Your task to perform on an android device: How much does a 3 bedroom apartment rent for in Austin? Image 0: 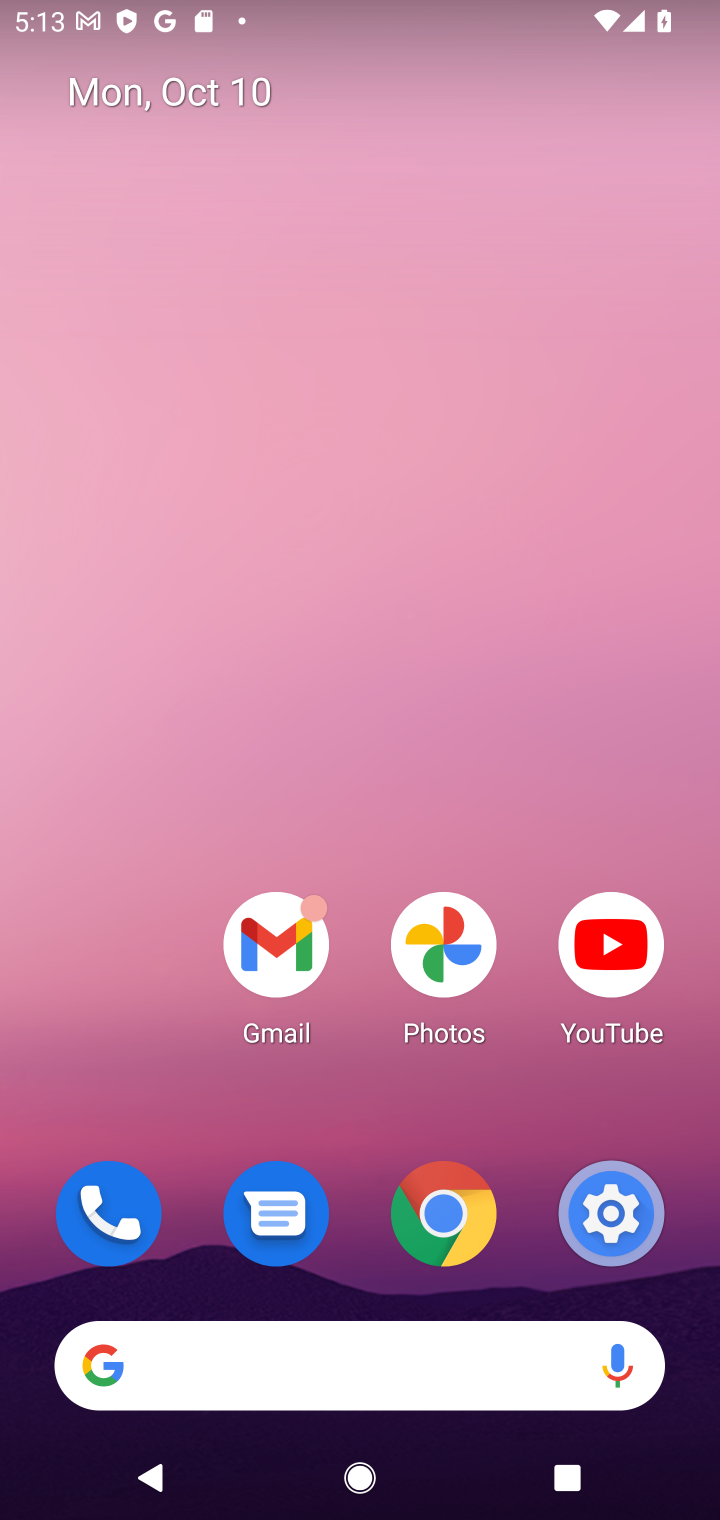
Step 0: click (376, 1379)
Your task to perform on an android device: How much does a 3 bedroom apartment rent for in Austin? Image 1: 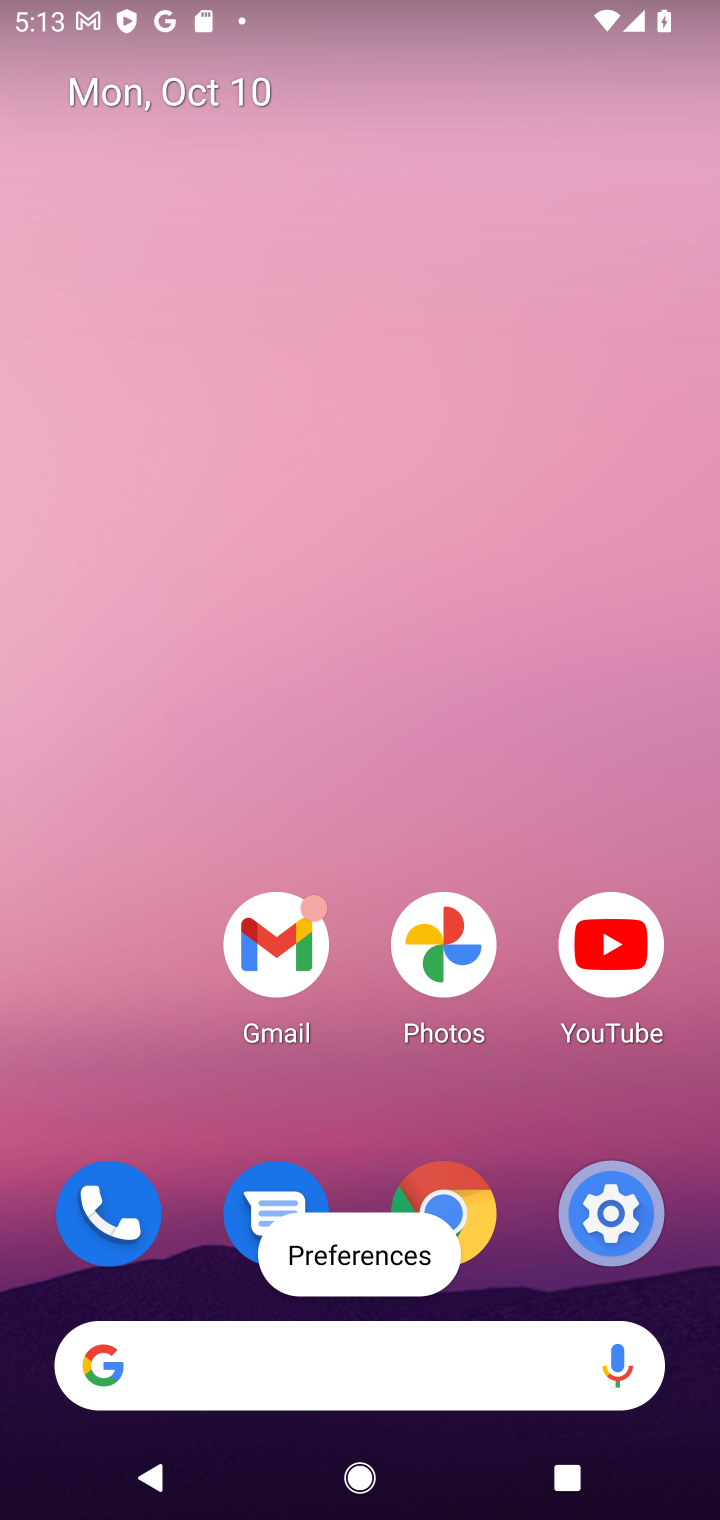
Step 1: click (376, 1379)
Your task to perform on an android device: How much does a 3 bedroom apartment rent for in Austin? Image 2: 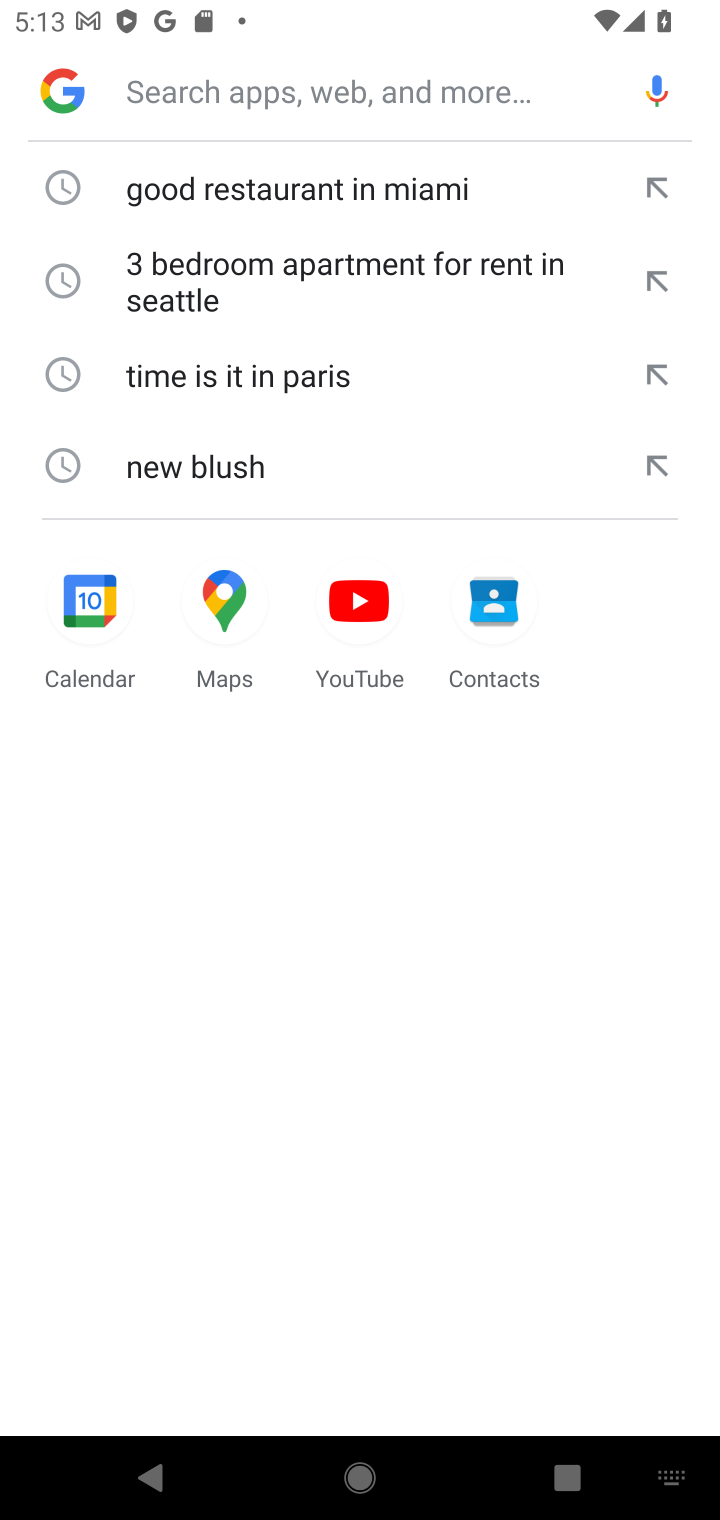
Step 2: type "3 bedroom apartment rent for in Austin"
Your task to perform on an android device: How much does a 3 bedroom apartment rent for in Austin? Image 3: 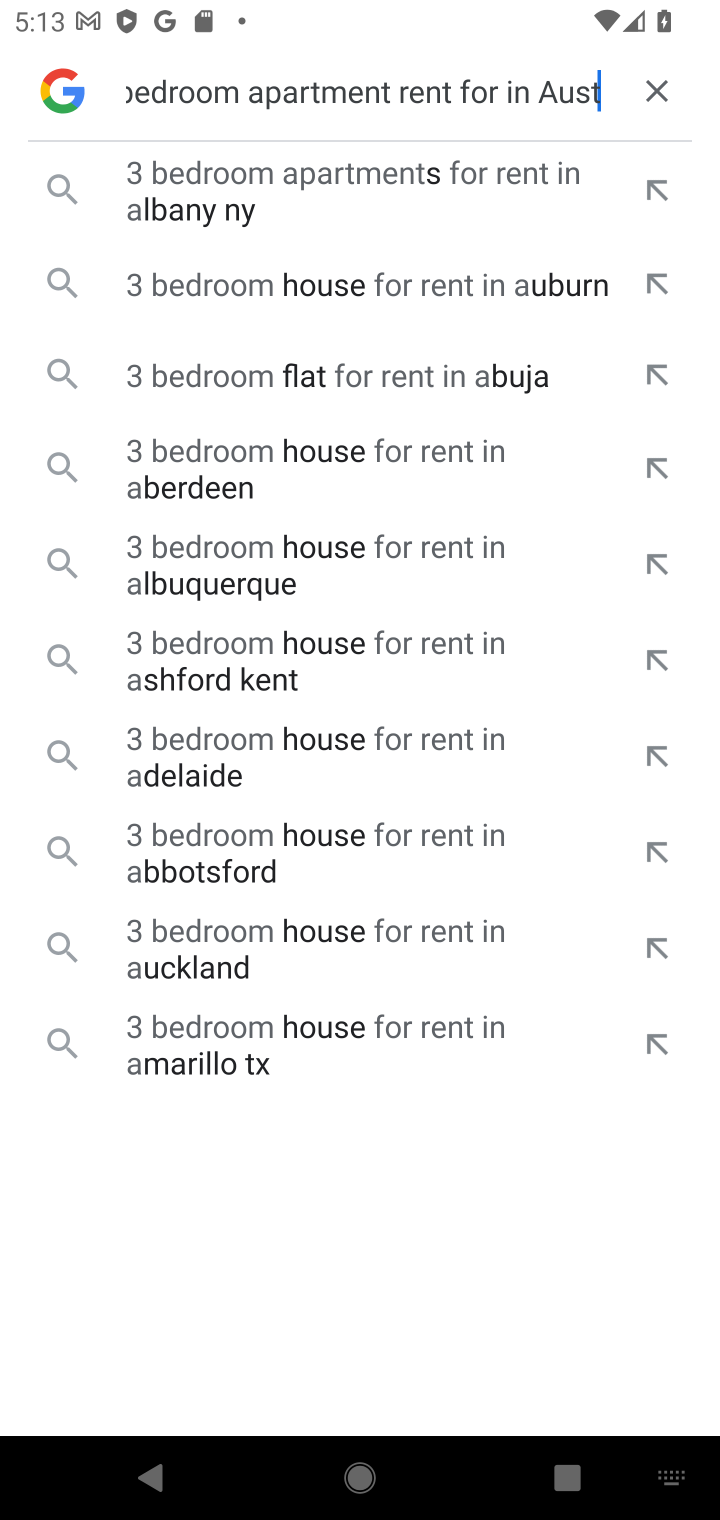
Step 3: type ""
Your task to perform on an android device: How much does a 3 bedroom apartment rent for in Austin? Image 4: 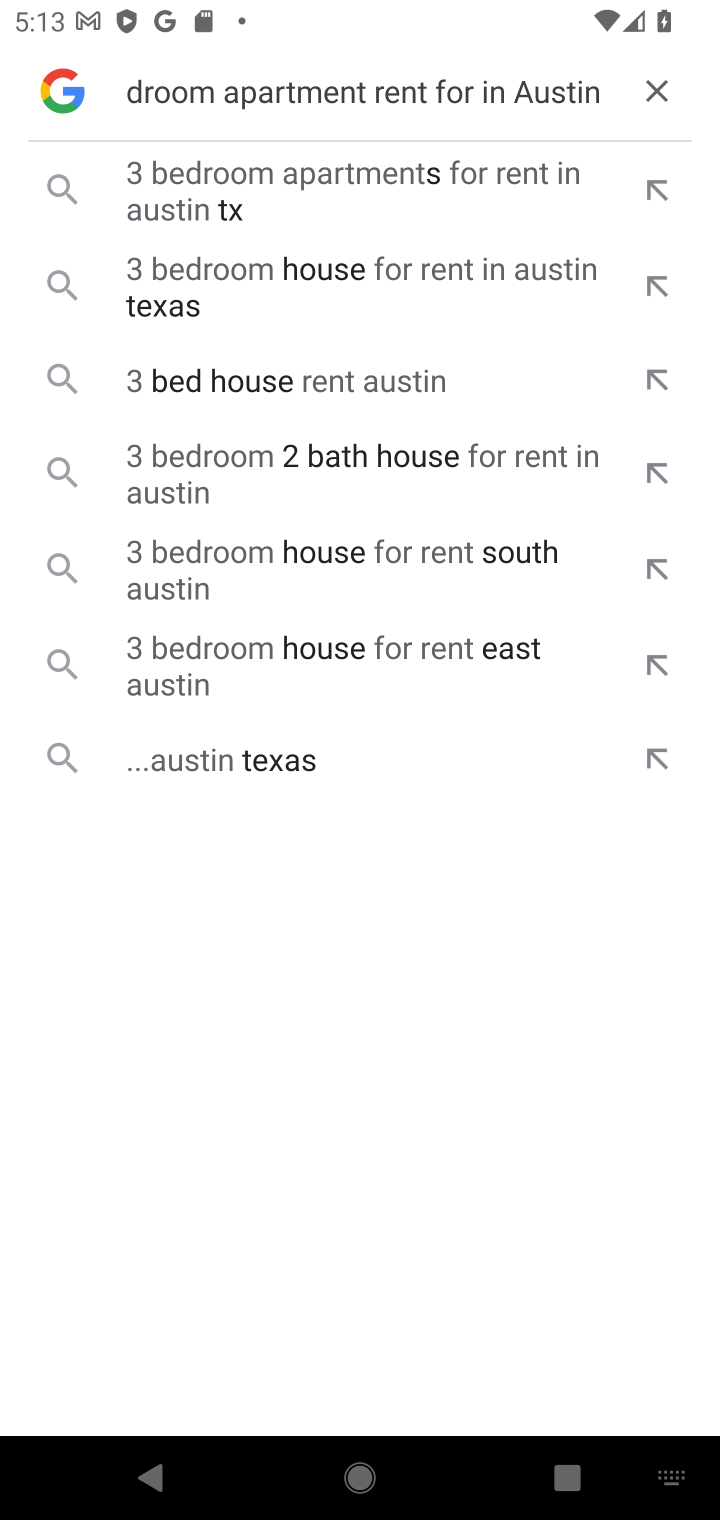
Step 4: click (339, 181)
Your task to perform on an android device: How much does a 3 bedroom apartment rent for in Austin? Image 5: 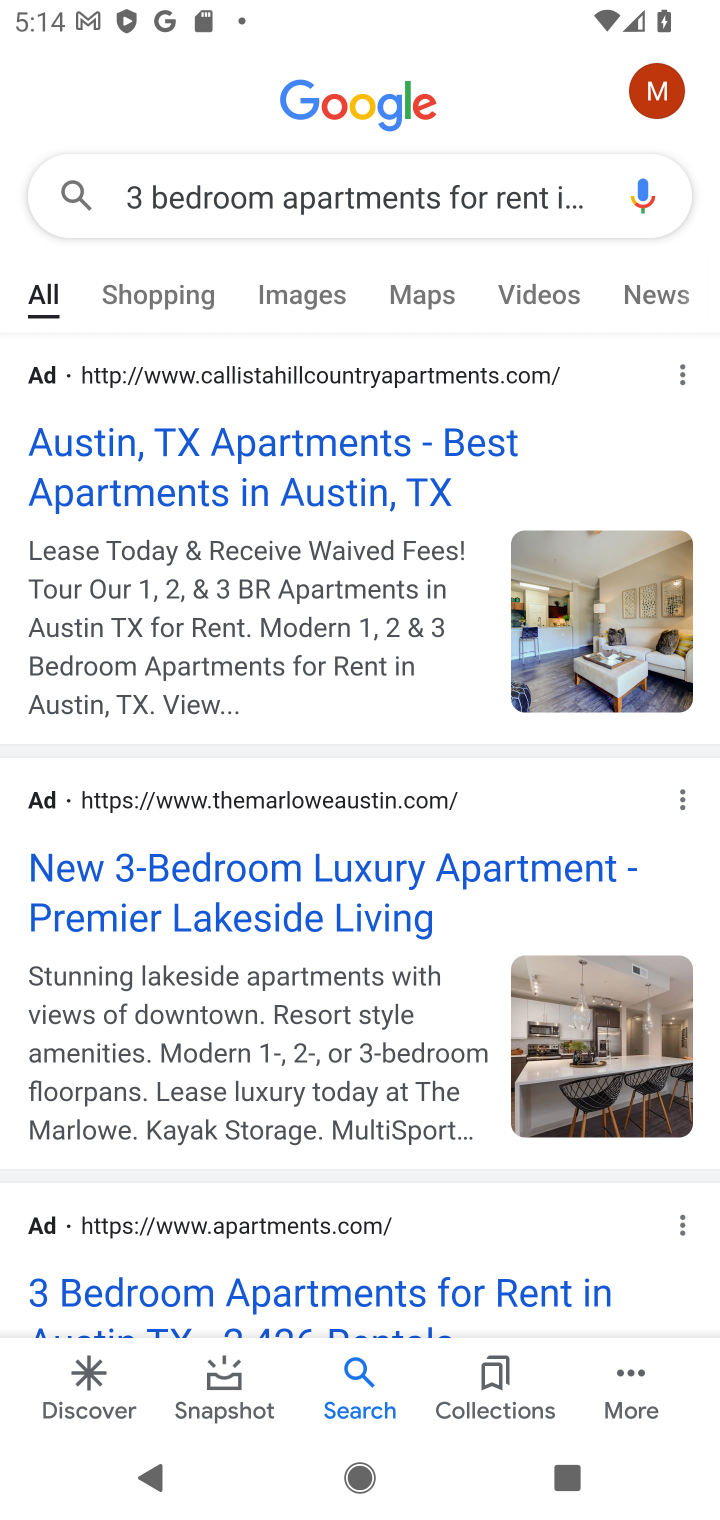
Step 5: drag from (362, 735) to (339, 338)
Your task to perform on an android device: How much does a 3 bedroom apartment rent for in Austin? Image 6: 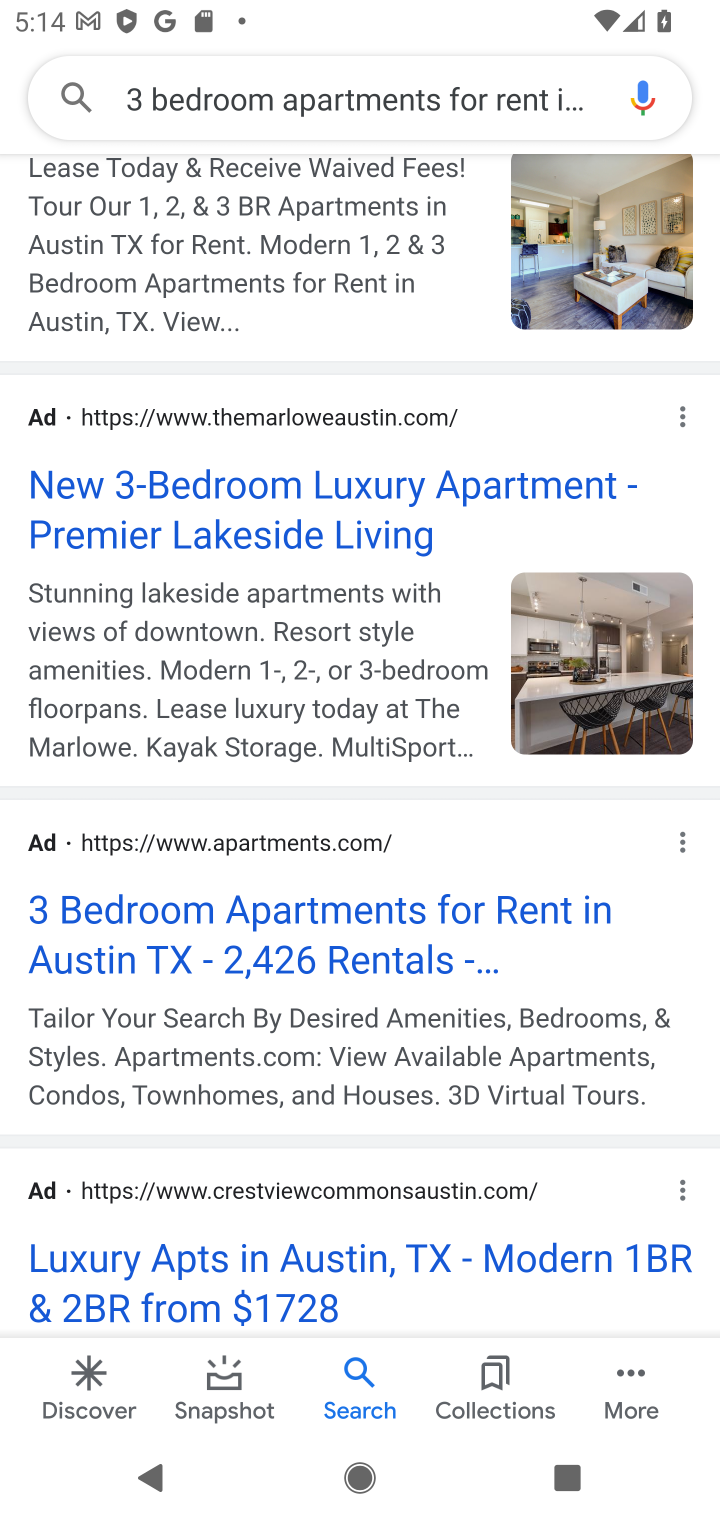
Step 6: drag from (331, 1126) to (367, 379)
Your task to perform on an android device: How much does a 3 bedroom apartment rent for in Austin? Image 7: 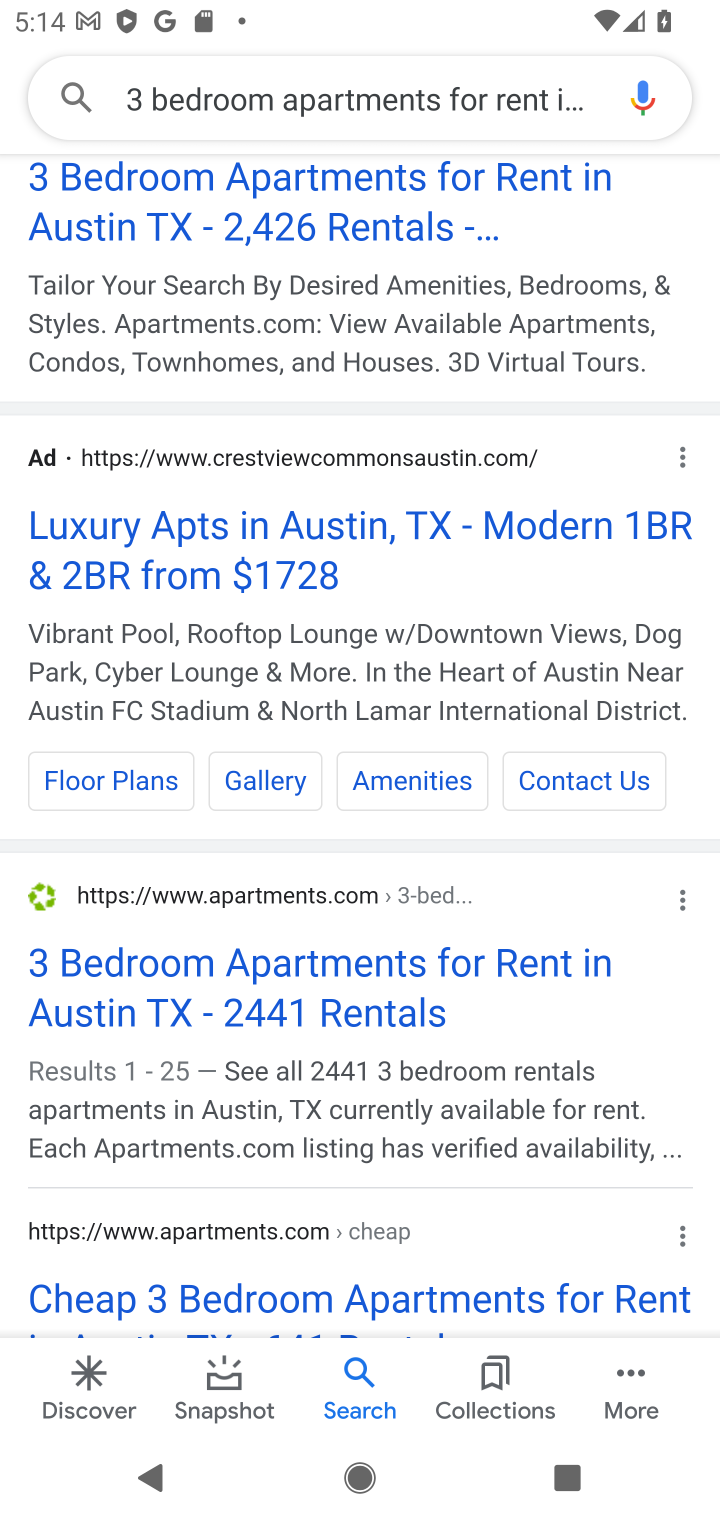
Step 7: drag from (348, 848) to (357, 641)
Your task to perform on an android device: How much does a 3 bedroom apartment rent for in Austin? Image 8: 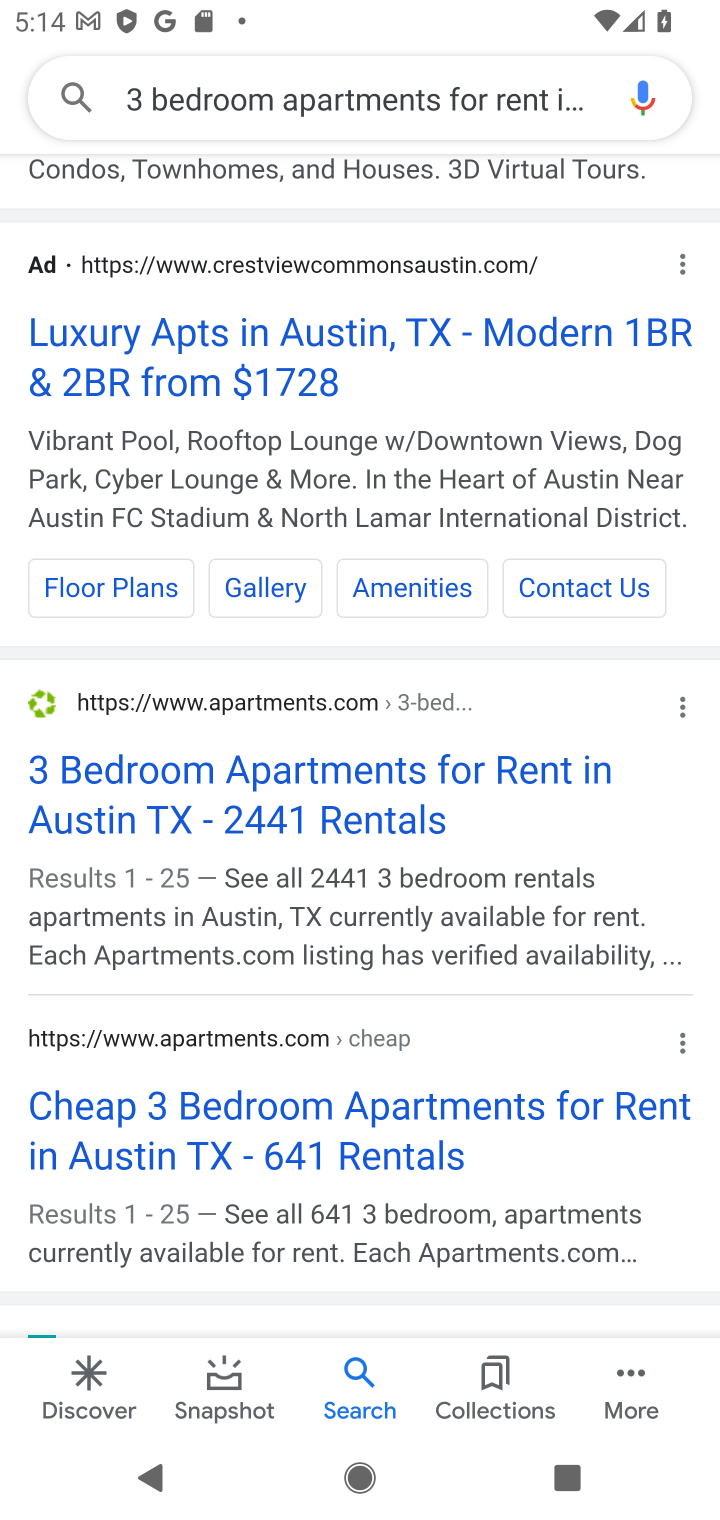
Step 8: click (347, 805)
Your task to perform on an android device: How much does a 3 bedroom apartment rent for in Austin? Image 9: 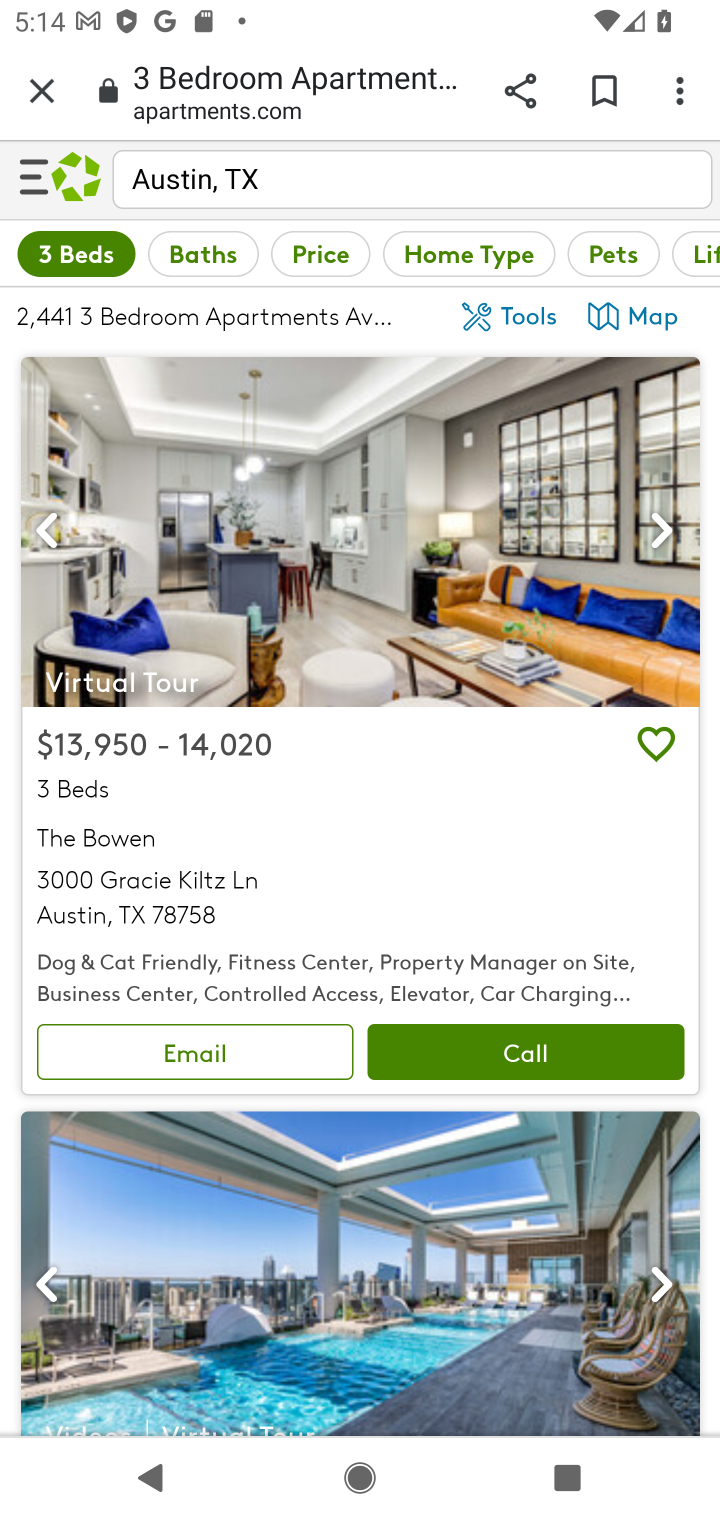
Step 9: task complete